Your task to perform on an android device: Show the shopping cart on walmart. Search for asus zenbook on walmart, select the first entry, add it to the cart, then select checkout. Image 0: 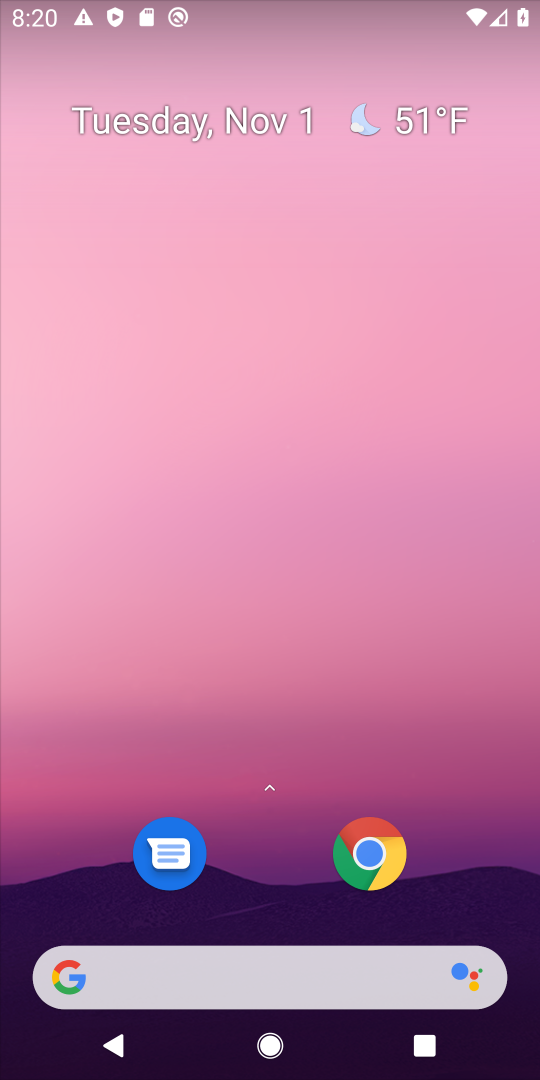
Step 0: click (249, 1004)
Your task to perform on an android device: Show the shopping cart on walmart. Search for asus zenbook on walmart, select the first entry, add it to the cart, then select checkout. Image 1: 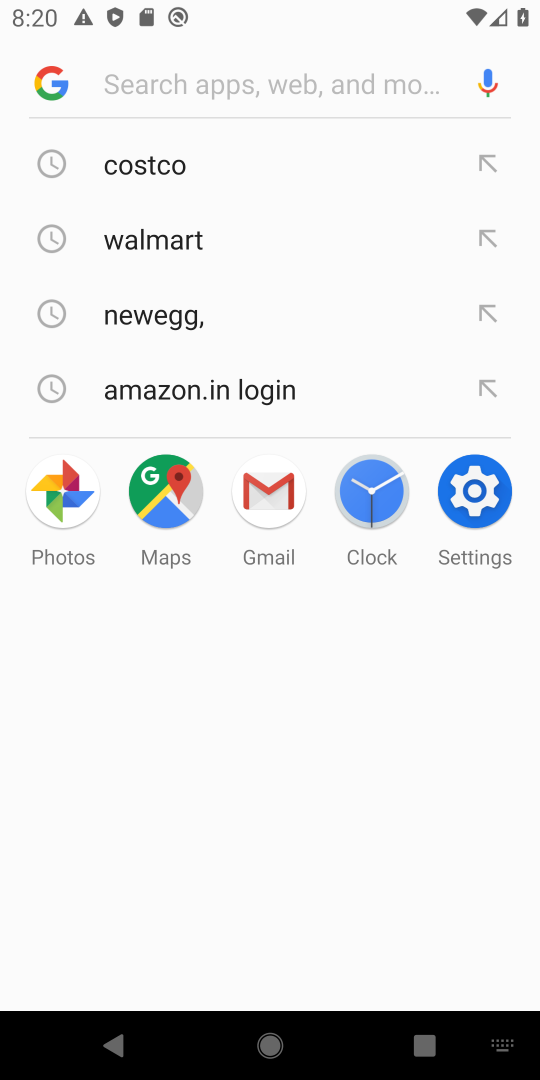
Step 1: type "walmart"
Your task to perform on an android device: Show the shopping cart on walmart. Search for asus zenbook on walmart, select the first entry, add it to the cart, then select checkout. Image 2: 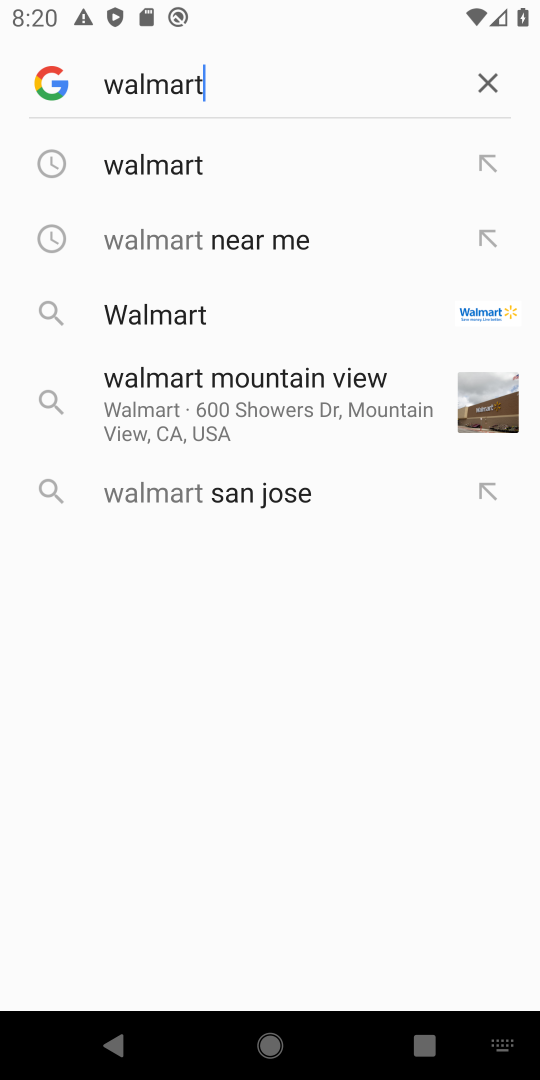
Step 2: click (179, 182)
Your task to perform on an android device: Show the shopping cart on walmart. Search for asus zenbook on walmart, select the first entry, add it to the cart, then select checkout. Image 3: 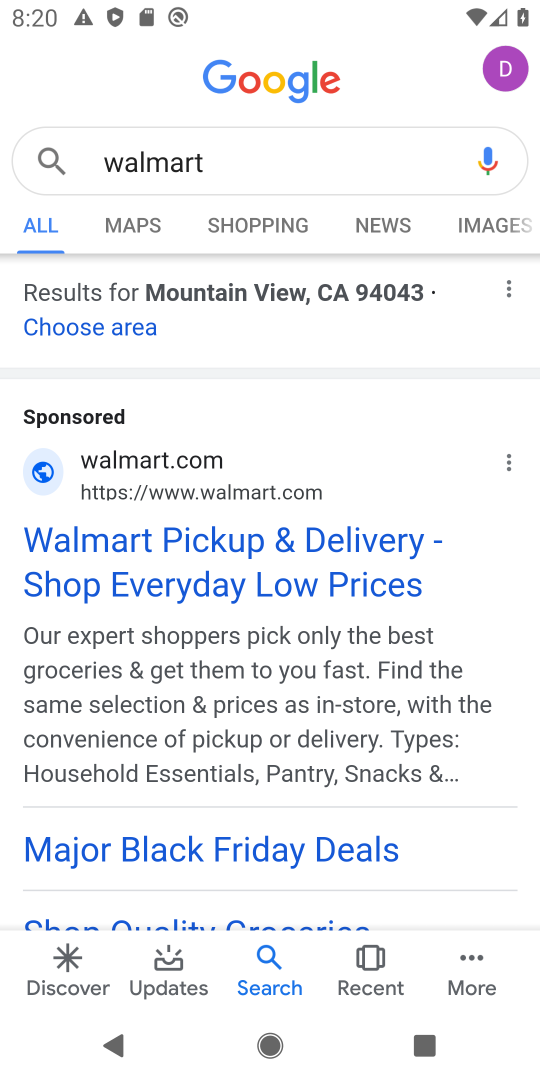
Step 3: click (110, 532)
Your task to perform on an android device: Show the shopping cart on walmart. Search for asus zenbook on walmart, select the first entry, add it to the cart, then select checkout. Image 4: 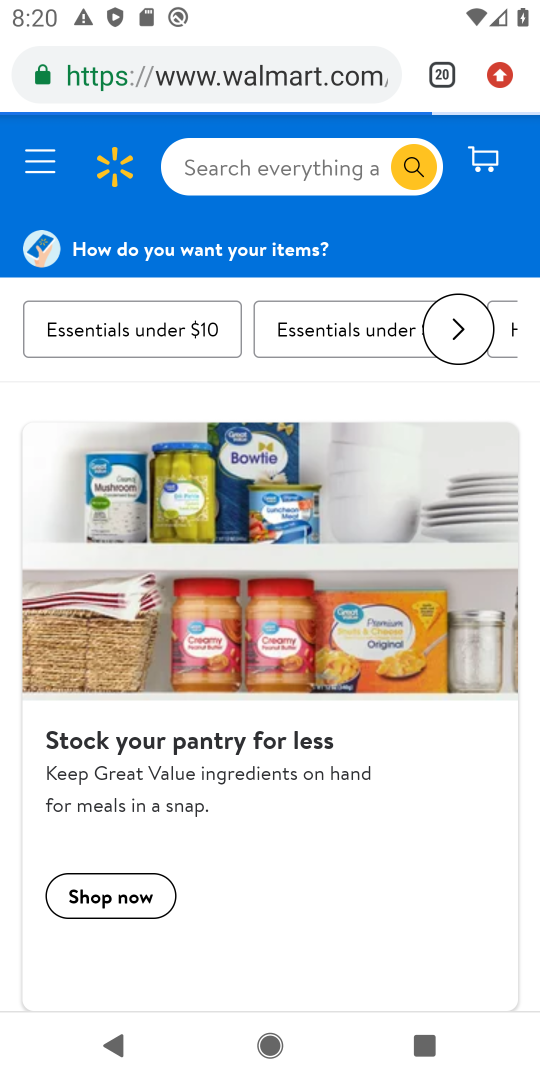
Step 4: click (83, 330)
Your task to perform on an android device: Show the shopping cart on walmart. Search for asus zenbook on walmart, select the first entry, add it to the cart, then select checkout. Image 5: 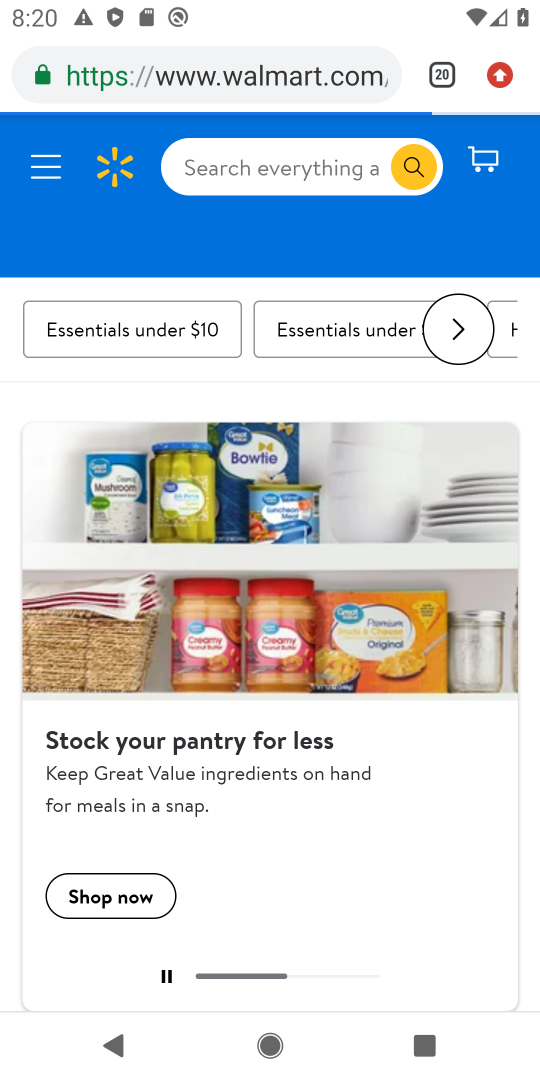
Step 5: click (294, 184)
Your task to perform on an android device: Show the shopping cart on walmart. Search for asus zenbook on walmart, select the first entry, add it to the cart, then select checkout. Image 6: 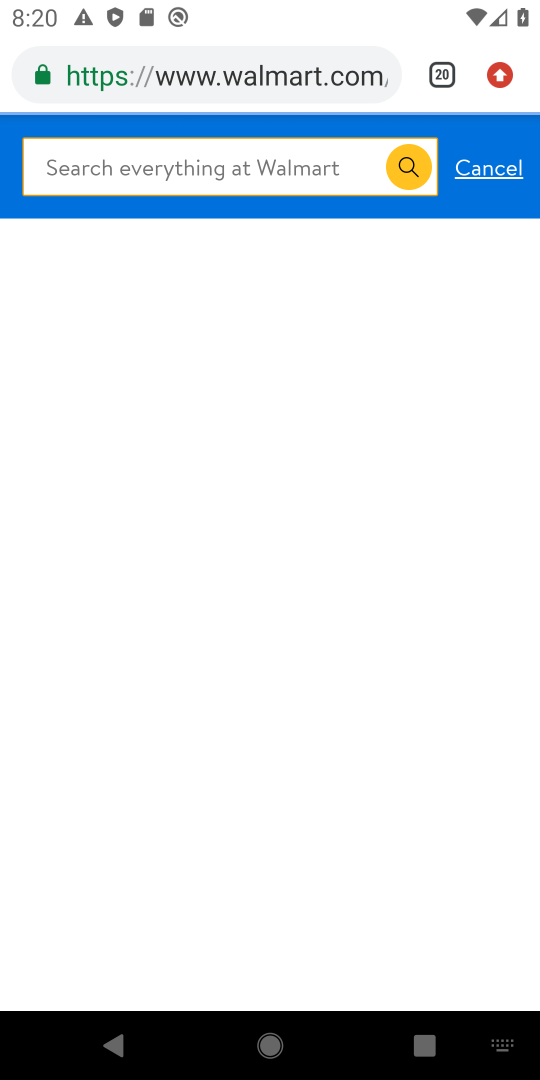
Step 6: type "asus zenbook"
Your task to perform on an android device: Show the shopping cart on walmart. Search for asus zenbook on walmart, select the first entry, add it to the cart, then select checkout. Image 7: 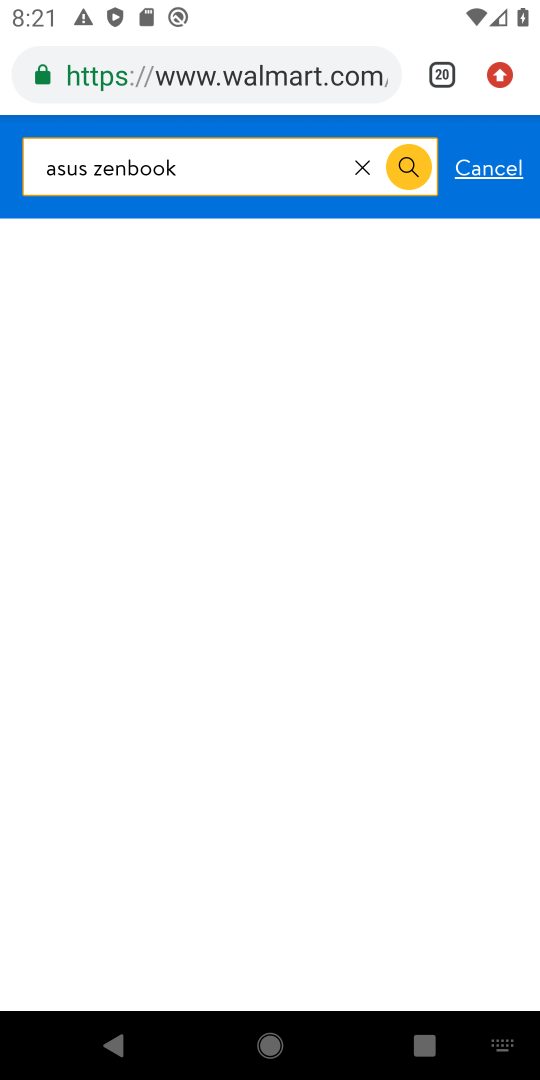
Step 7: click (413, 170)
Your task to perform on an android device: Show the shopping cart on walmart. Search for asus zenbook on walmart, select the first entry, add it to the cart, then select checkout. Image 8: 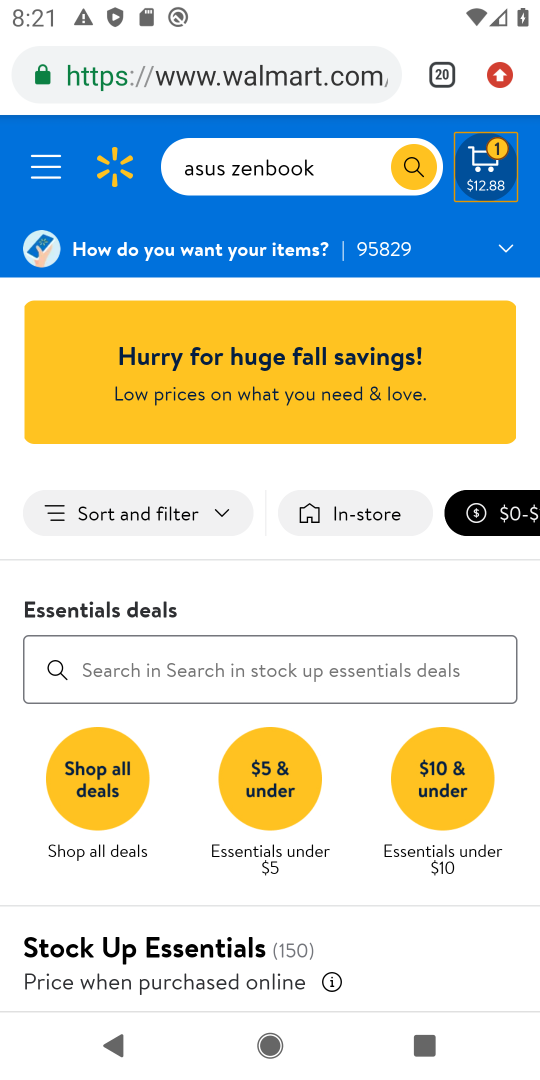
Step 8: click (192, 669)
Your task to perform on an android device: Show the shopping cart on walmart. Search for asus zenbook on walmart, select the first entry, add it to the cart, then select checkout. Image 9: 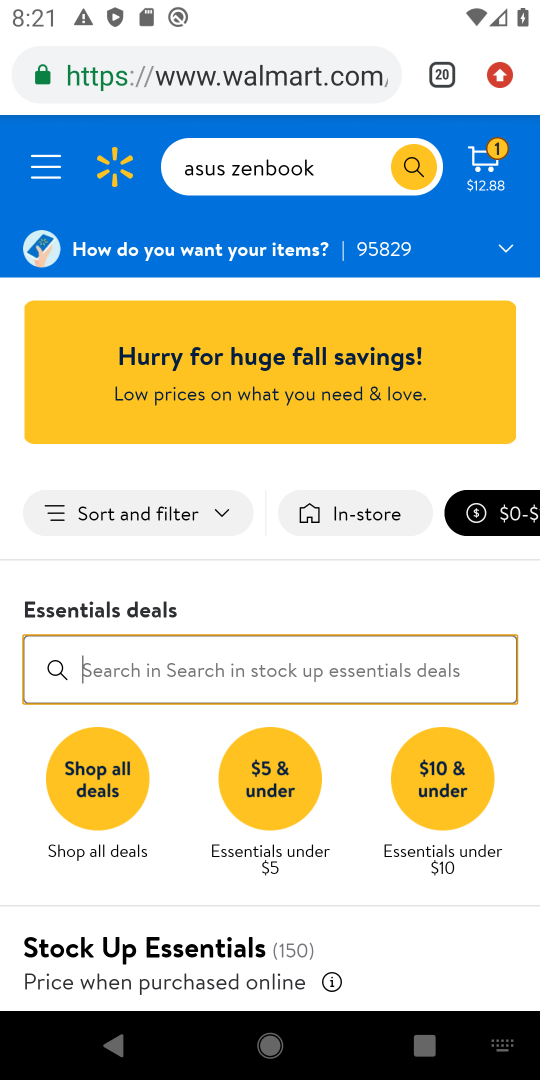
Step 9: click (414, 161)
Your task to perform on an android device: Show the shopping cart on walmart. Search for asus zenbook on walmart, select the first entry, add it to the cart, then select checkout. Image 10: 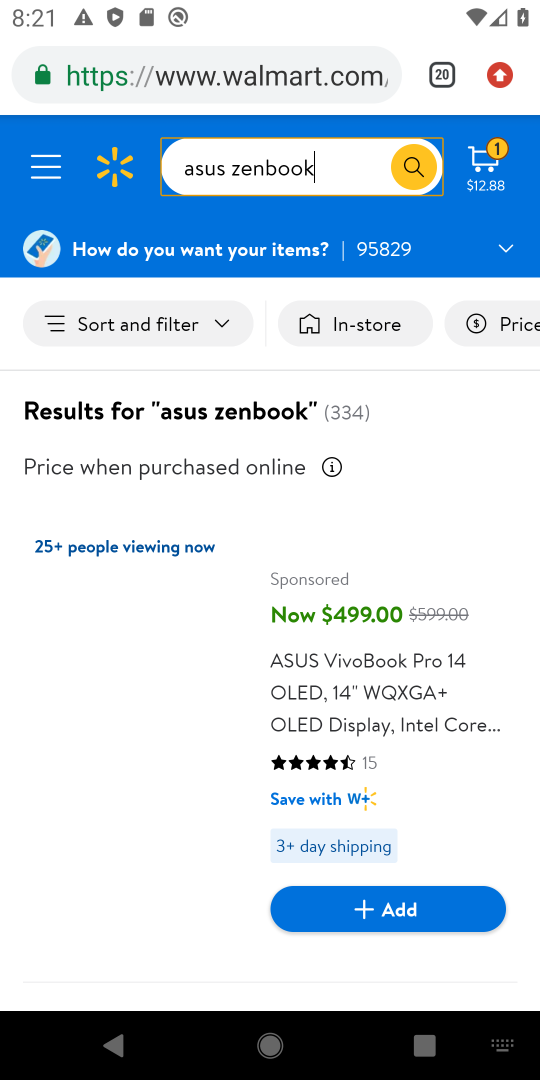
Step 10: click (397, 914)
Your task to perform on an android device: Show the shopping cart on walmart. Search for asus zenbook on walmart, select the first entry, add it to the cart, then select checkout. Image 11: 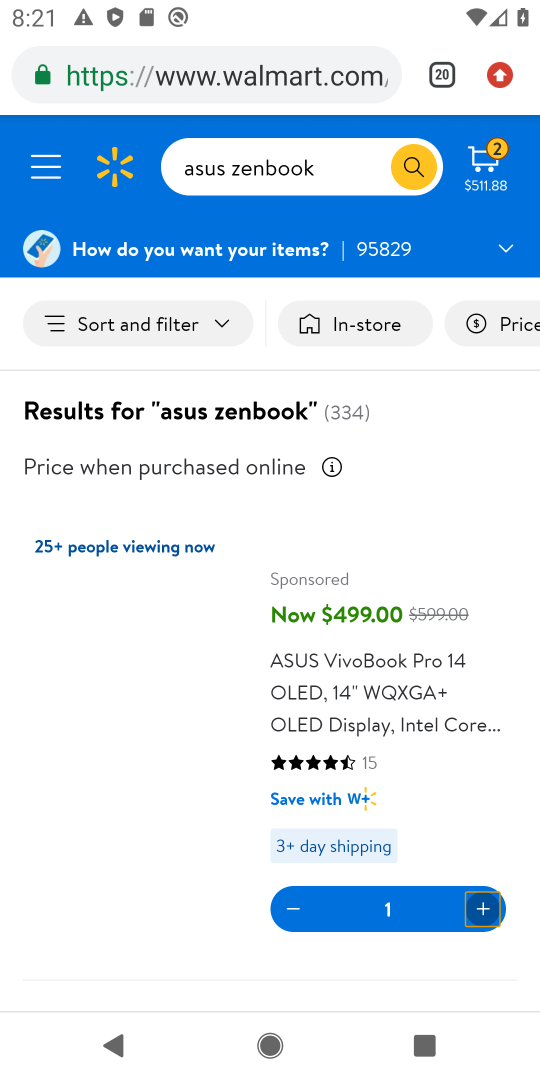
Step 11: task complete